Your task to perform on an android device: turn pop-ups off in chrome Image 0: 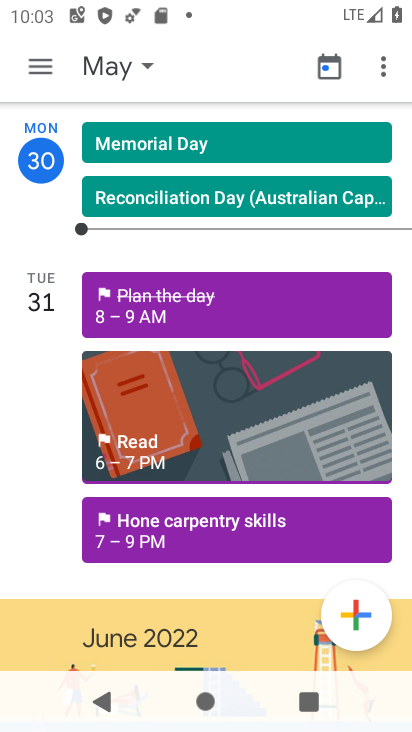
Step 0: press home button
Your task to perform on an android device: turn pop-ups off in chrome Image 1: 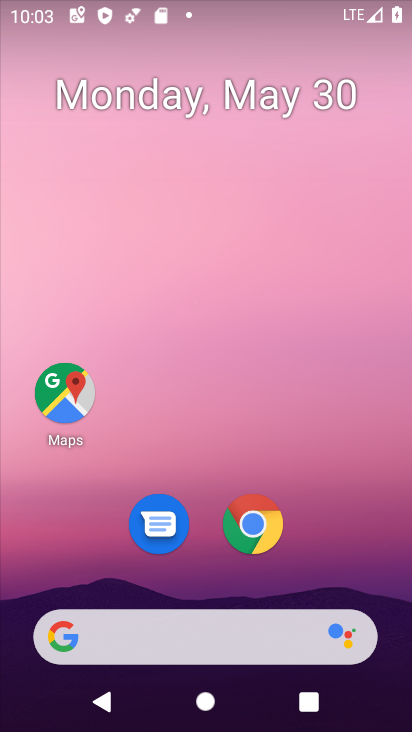
Step 1: click (260, 513)
Your task to perform on an android device: turn pop-ups off in chrome Image 2: 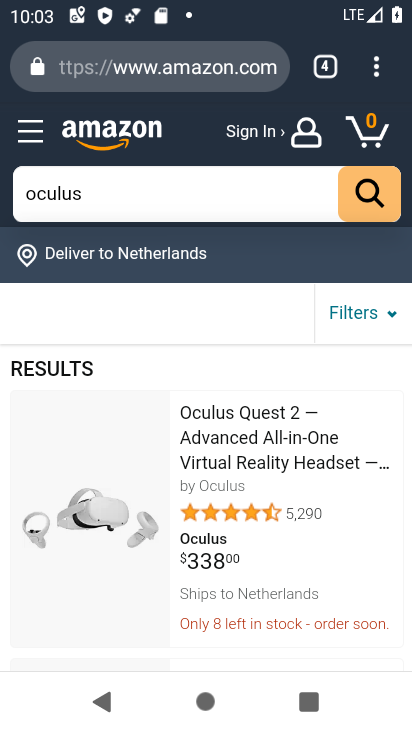
Step 2: click (380, 67)
Your task to perform on an android device: turn pop-ups off in chrome Image 3: 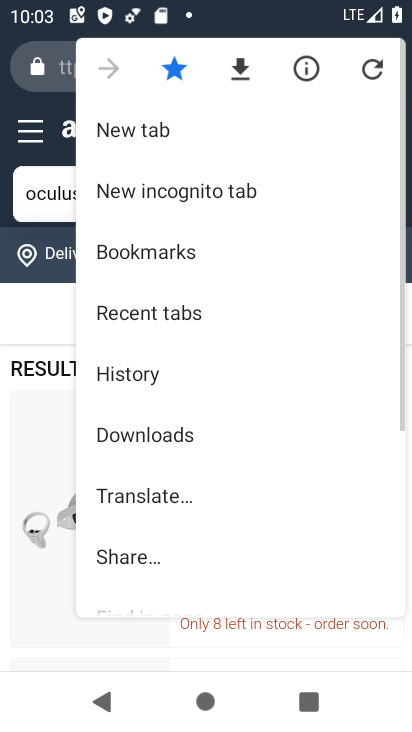
Step 3: drag from (329, 501) to (303, 85)
Your task to perform on an android device: turn pop-ups off in chrome Image 4: 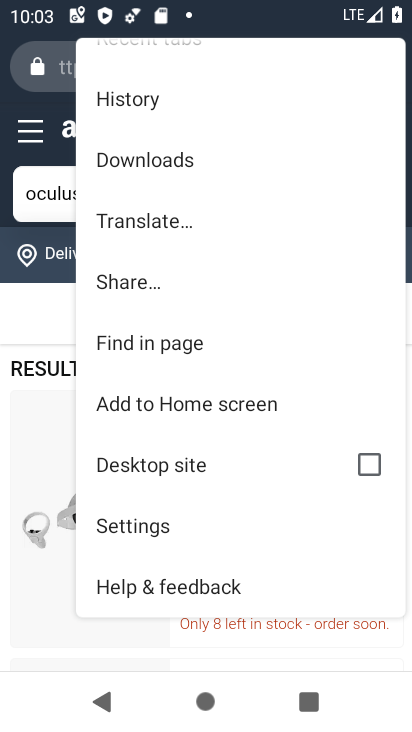
Step 4: click (221, 532)
Your task to perform on an android device: turn pop-ups off in chrome Image 5: 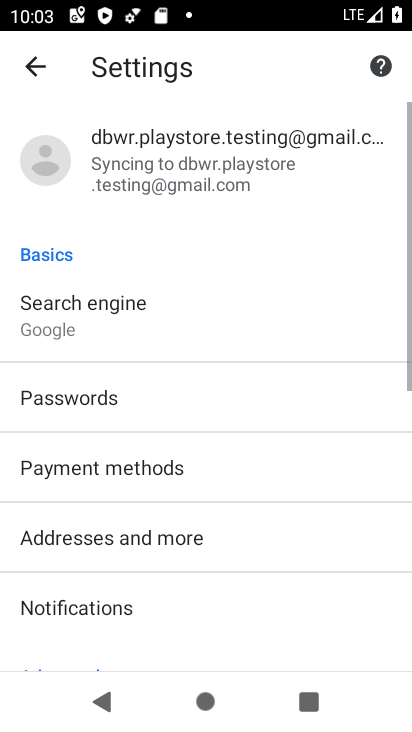
Step 5: drag from (271, 483) to (266, 84)
Your task to perform on an android device: turn pop-ups off in chrome Image 6: 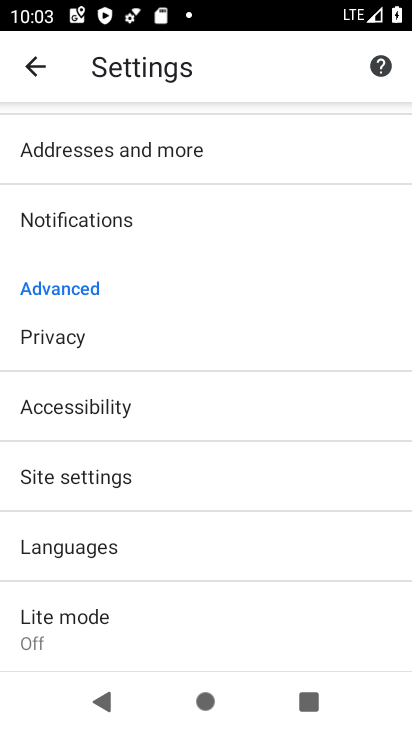
Step 6: click (179, 476)
Your task to perform on an android device: turn pop-ups off in chrome Image 7: 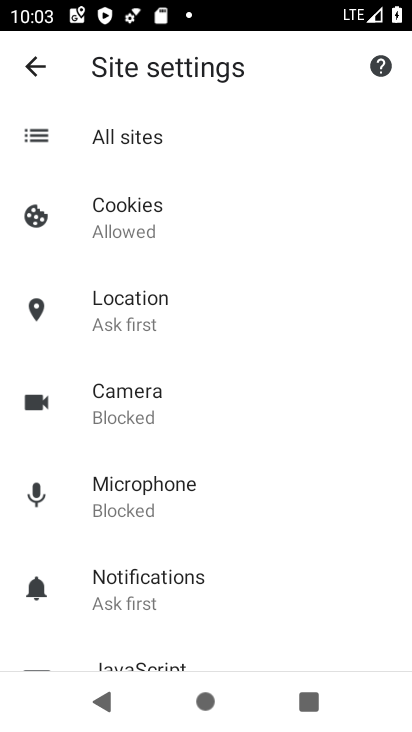
Step 7: drag from (218, 439) to (241, 100)
Your task to perform on an android device: turn pop-ups off in chrome Image 8: 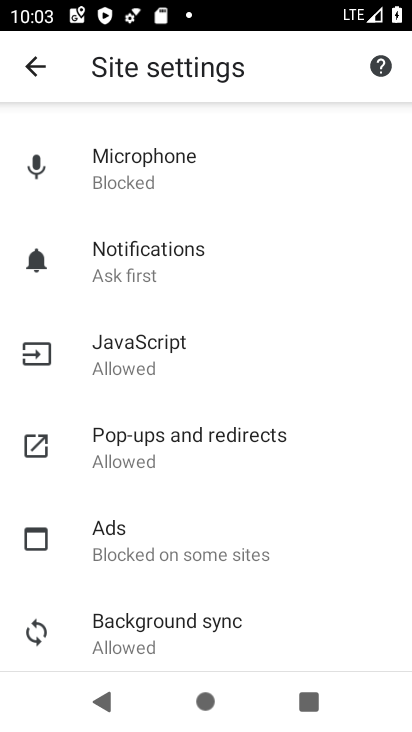
Step 8: click (220, 431)
Your task to perform on an android device: turn pop-ups off in chrome Image 9: 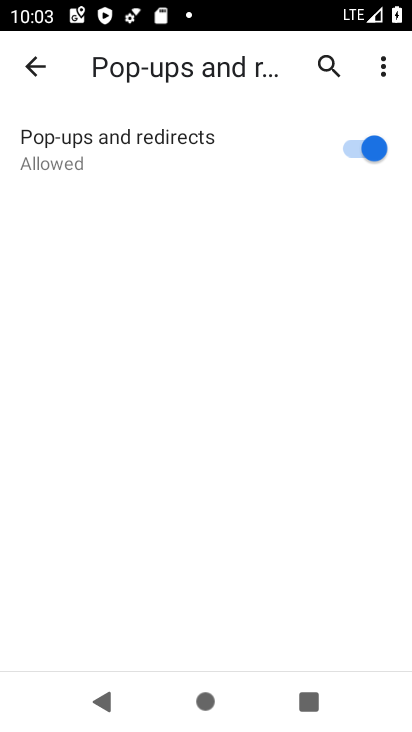
Step 9: click (359, 149)
Your task to perform on an android device: turn pop-ups off in chrome Image 10: 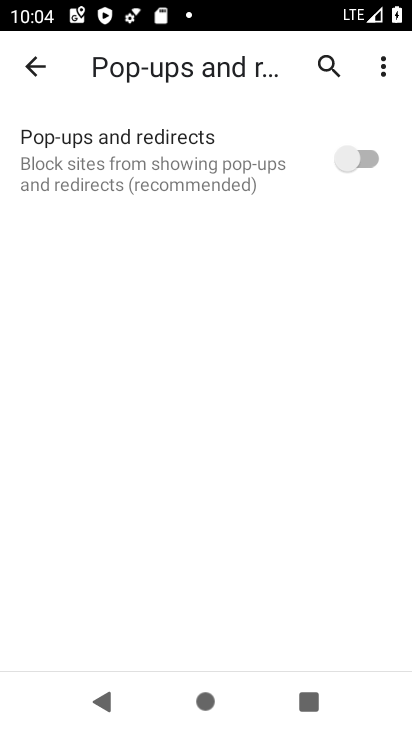
Step 10: task complete